Your task to perform on an android device: change the clock display to analog Image 0: 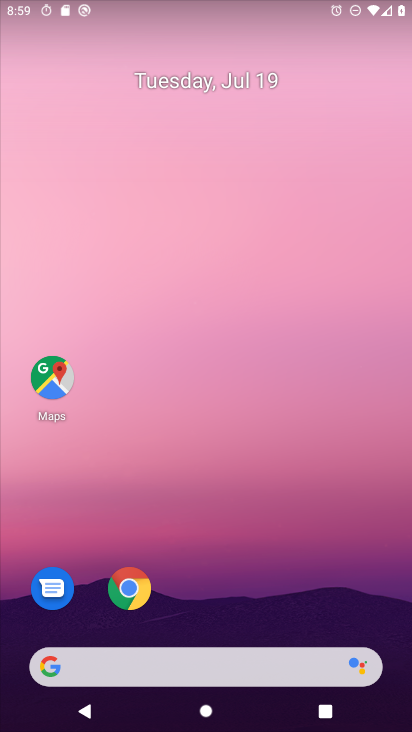
Step 0: drag from (232, 567) to (231, 166)
Your task to perform on an android device: change the clock display to analog Image 1: 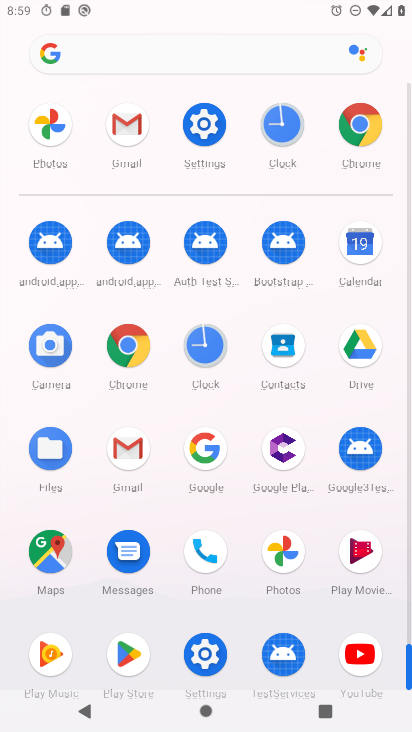
Step 1: click (214, 352)
Your task to perform on an android device: change the clock display to analog Image 2: 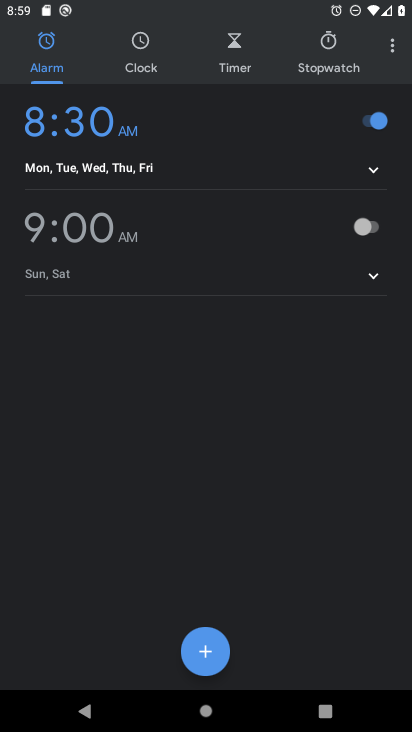
Step 2: click (397, 49)
Your task to perform on an android device: change the clock display to analog Image 3: 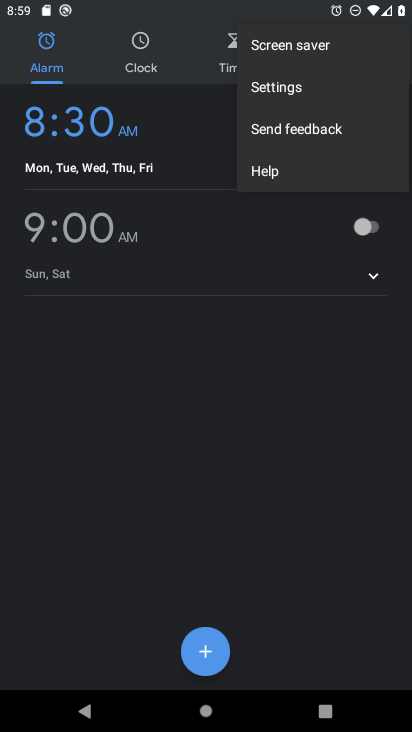
Step 3: click (313, 79)
Your task to perform on an android device: change the clock display to analog Image 4: 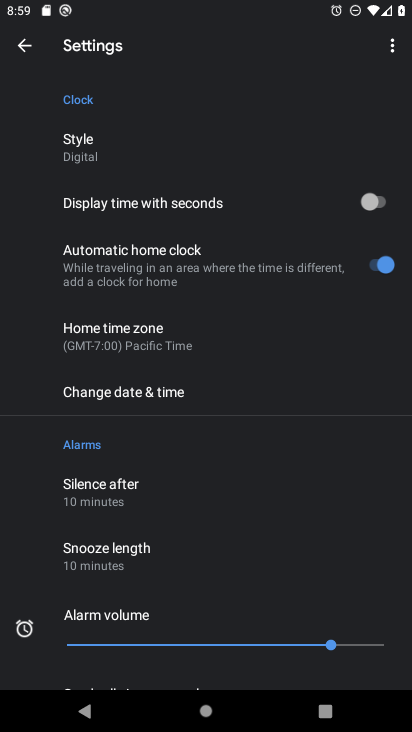
Step 4: click (218, 169)
Your task to perform on an android device: change the clock display to analog Image 5: 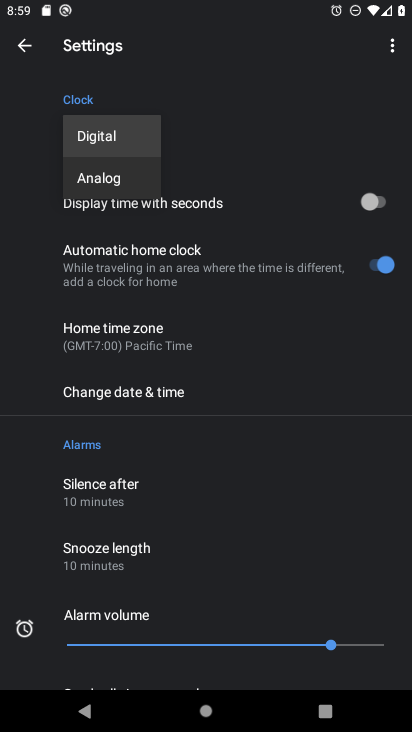
Step 5: click (135, 171)
Your task to perform on an android device: change the clock display to analog Image 6: 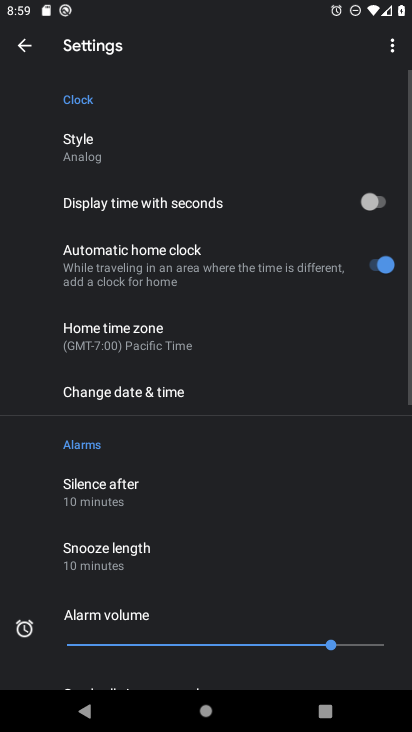
Step 6: task complete